Your task to perform on an android device: Clear all items from cart on bestbuy.com. Add jbl flip 4 to the cart on bestbuy.com, then select checkout. Image 0: 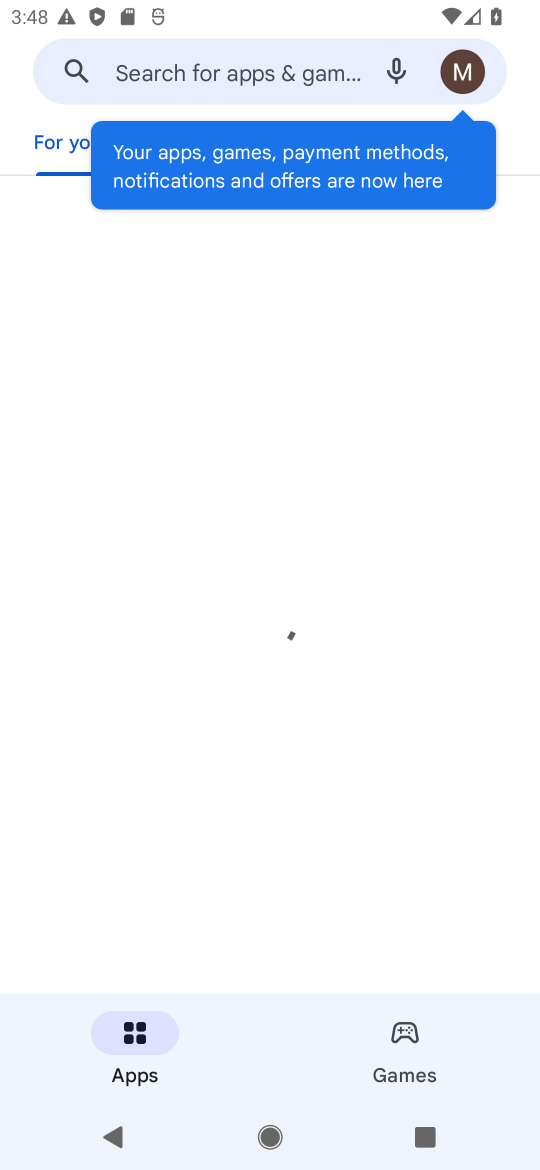
Step 0: press home button
Your task to perform on an android device: Clear all items from cart on bestbuy.com. Add jbl flip 4 to the cart on bestbuy.com, then select checkout. Image 1: 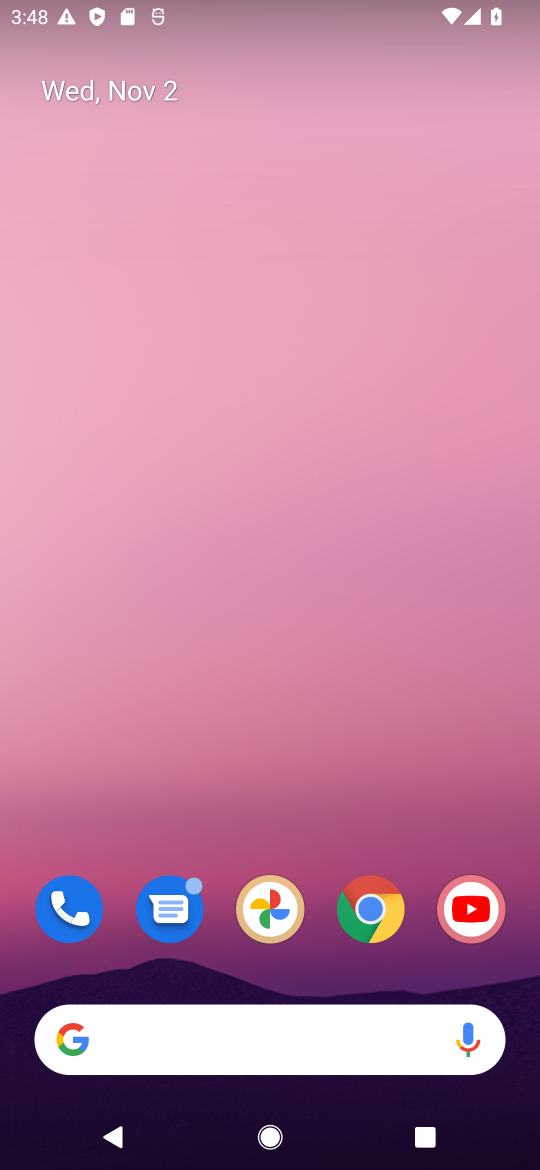
Step 1: click (374, 909)
Your task to perform on an android device: Clear all items from cart on bestbuy.com. Add jbl flip 4 to the cart on bestbuy.com, then select checkout. Image 2: 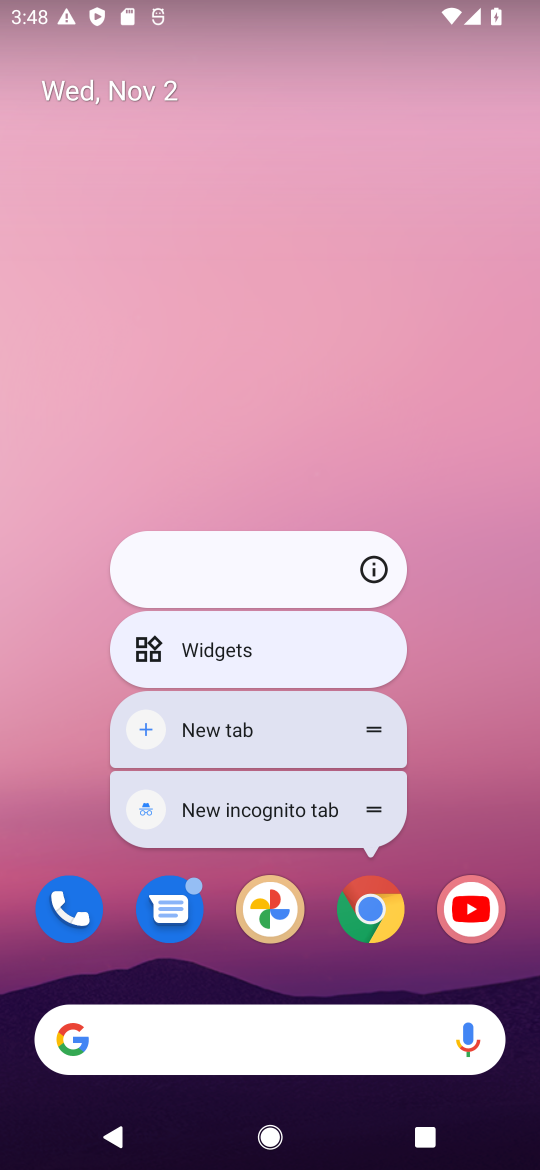
Step 2: click (367, 916)
Your task to perform on an android device: Clear all items from cart on bestbuy.com. Add jbl flip 4 to the cart on bestbuy.com, then select checkout. Image 3: 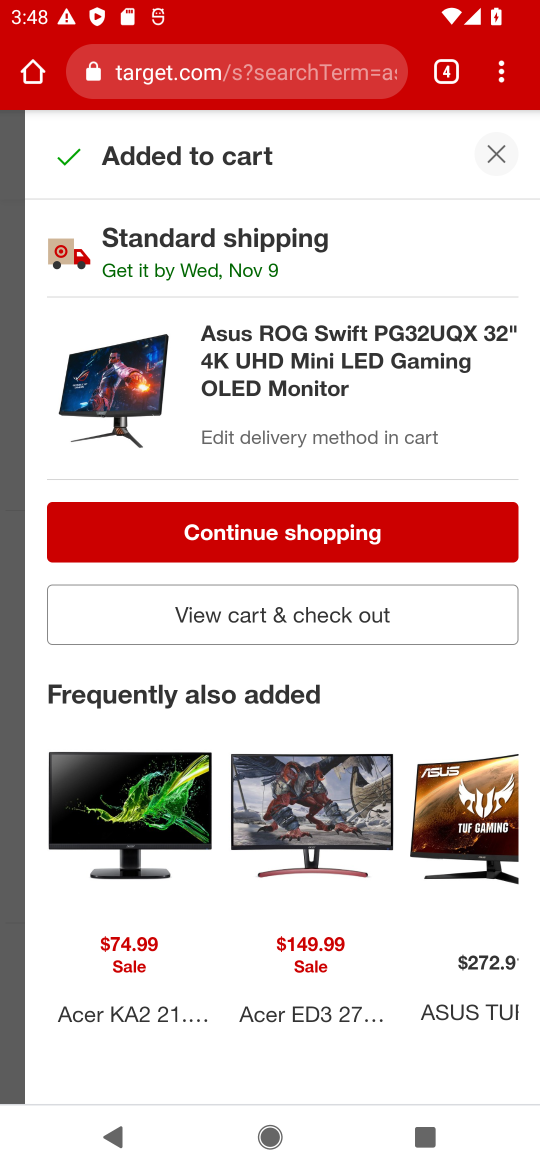
Step 3: click (320, 69)
Your task to perform on an android device: Clear all items from cart on bestbuy.com. Add jbl flip 4 to the cart on bestbuy.com, then select checkout. Image 4: 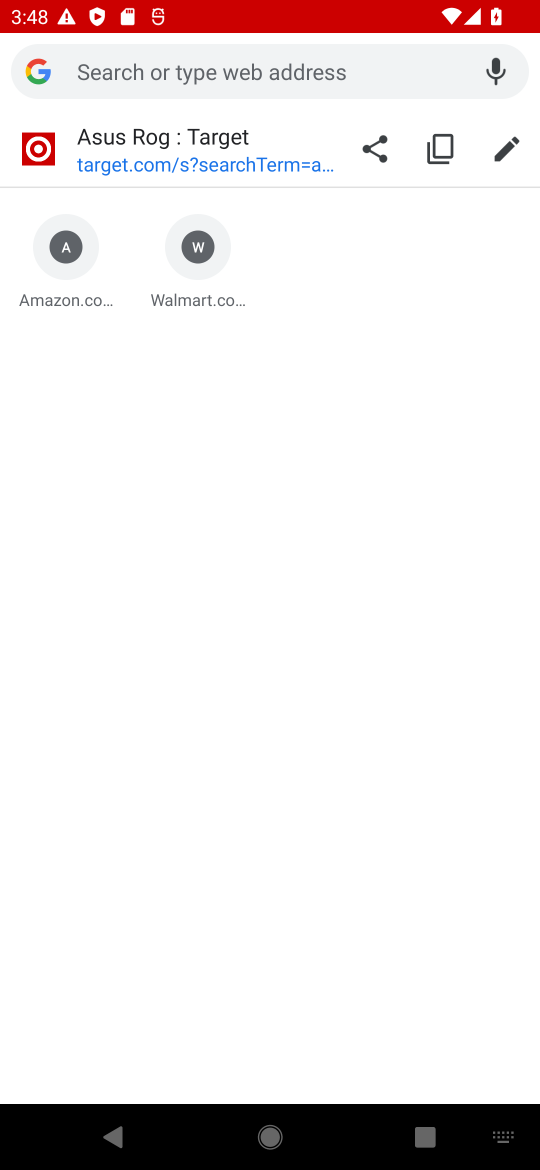
Step 4: type "bestbuy"
Your task to perform on an android device: Clear all items from cart on bestbuy.com. Add jbl flip 4 to the cart on bestbuy.com, then select checkout. Image 5: 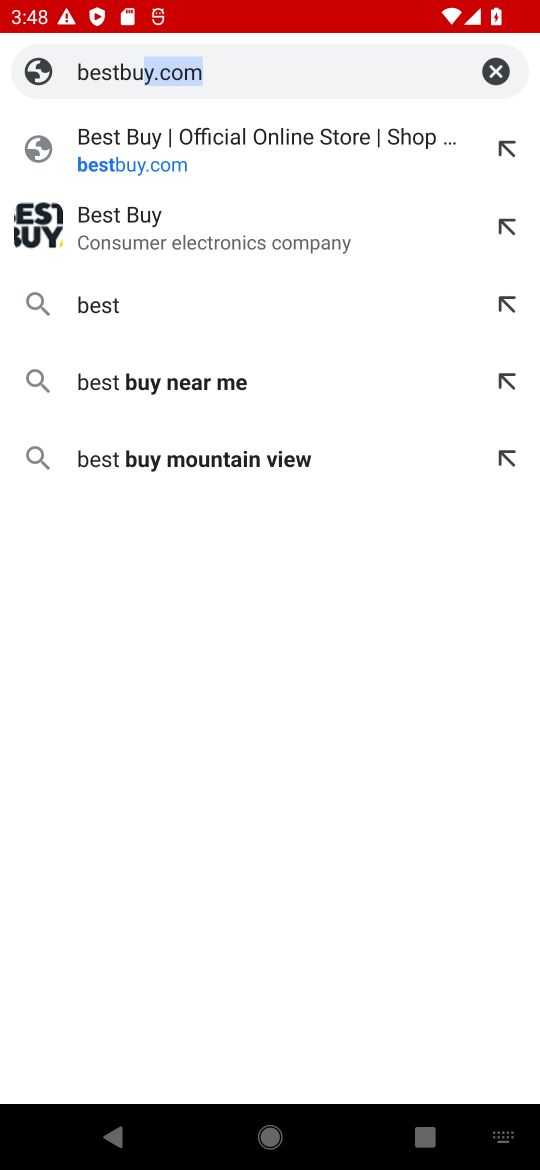
Step 5: press enter
Your task to perform on an android device: Clear all items from cart on bestbuy.com. Add jbl flip 4 to the cart on bestbuy.com, then select checkout. Image 6: 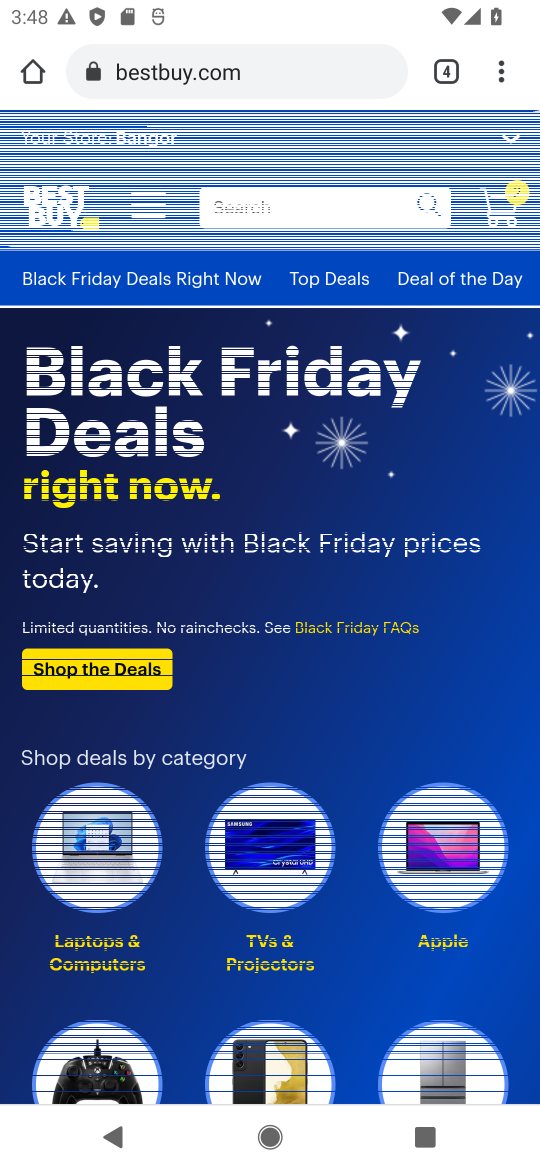
Step 6: click (310, 216)
Your task to perform on an android device: Clear all items from cart on bestbuy.com. Add jbl flip 4 to the cart on bestbuy.com, then select checkout. Image 7: 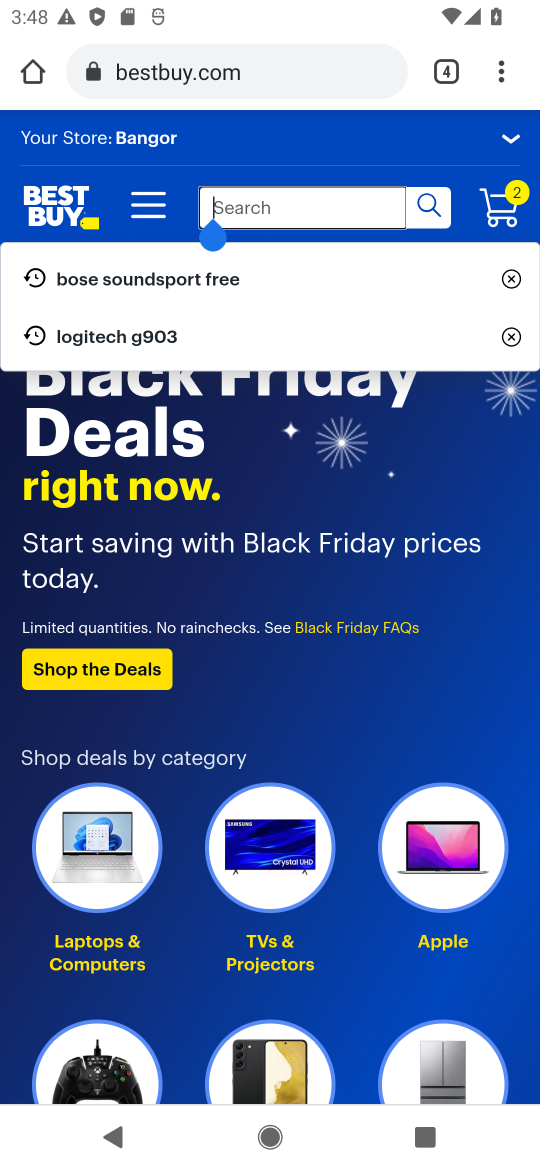
Step 7: click (308, 207)
Your task to perform on an android device: Clear all items from cart on bestbuy.com. Add jbl flip 4 to the cart on bestbuy.com, then select checkout. Image 8: 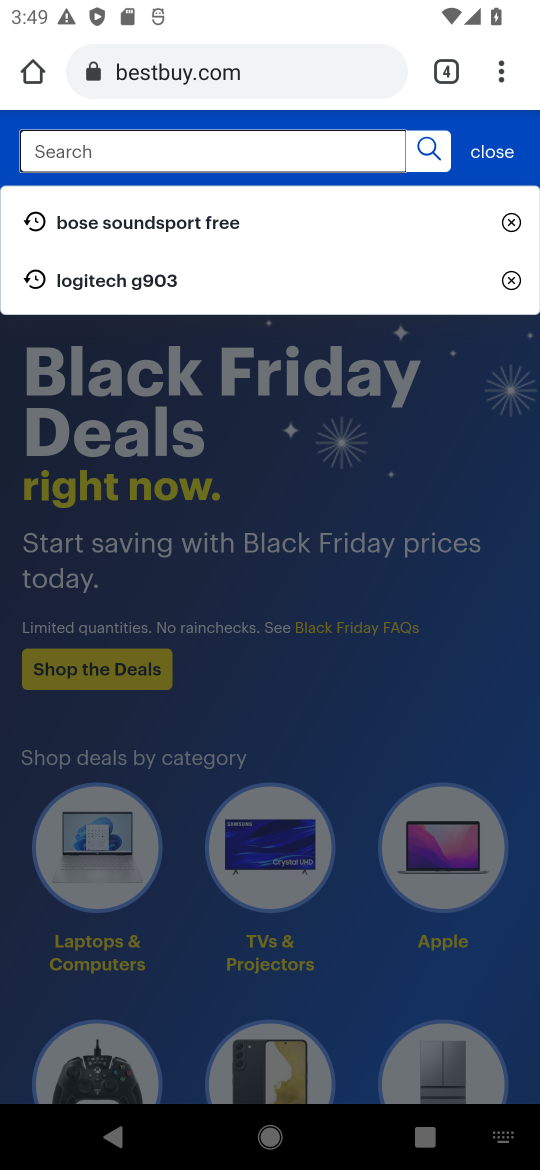
Step 8: type " jbl flip 4"
Your task to perform on an android device: Clear all items from cart on bestbuy.com. Add jbl flip 4 to the cart on bestbuy.com, then select checkout. Image 9: 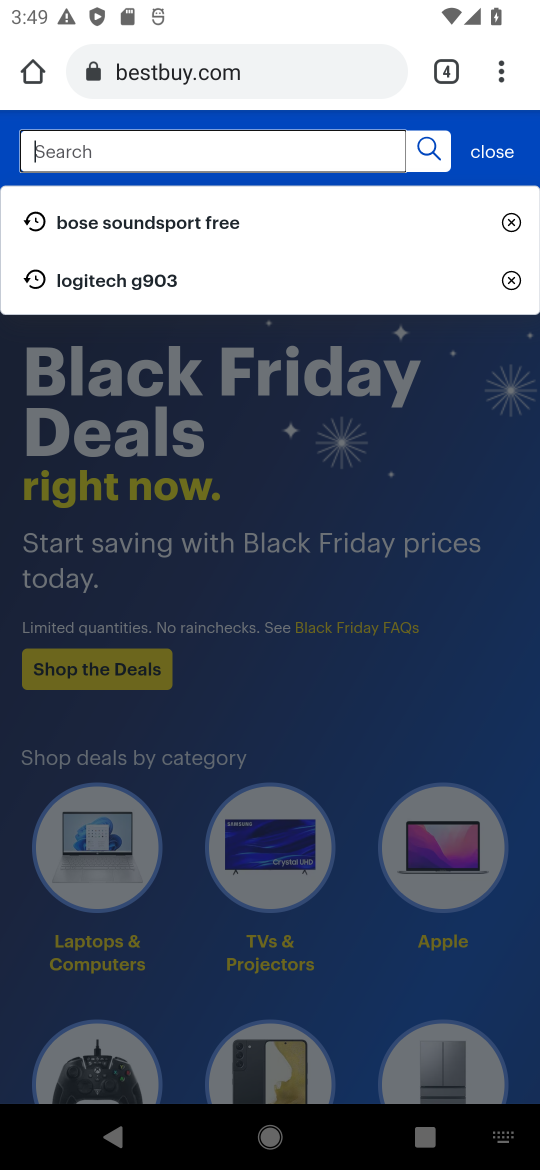
Step 9: press enter
Your task to perform on an android device: Clear all items from cart on bestbuy.com. Add jbl flip 4 to the cart on bestbuy.com, then select checkout. Image 10: 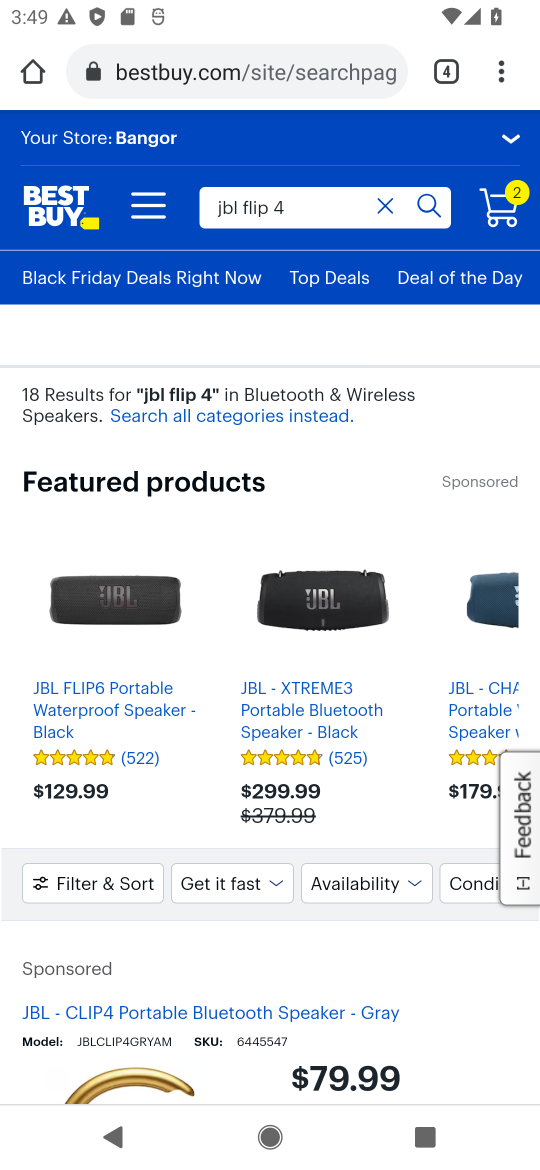
Step 10: drag from (77, 945) to (285, 526)
Your task to perform on an android device: Clear all items from cart on bestbuy.com. Add jbl flip 4 to the cart on bestbuy.com, then select checkout. Image 11: 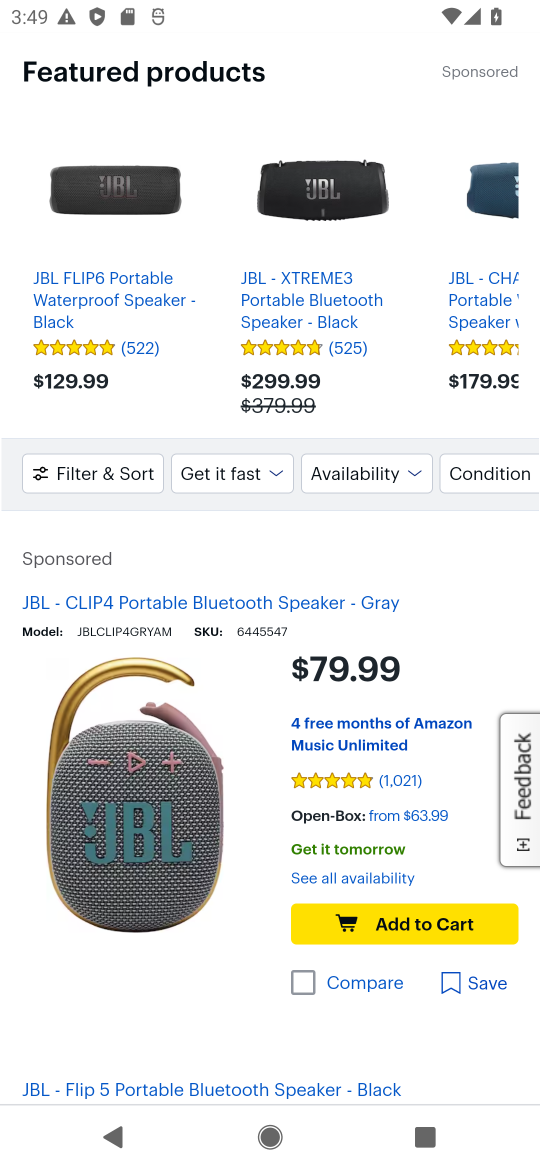
Step 11: click (399, 924)
Your task to perform on an android device: Clear all items from cart on bestbuy.com. Add jbl flip 4 to the cart on bestbuy.com, then select checkout. Image 12: 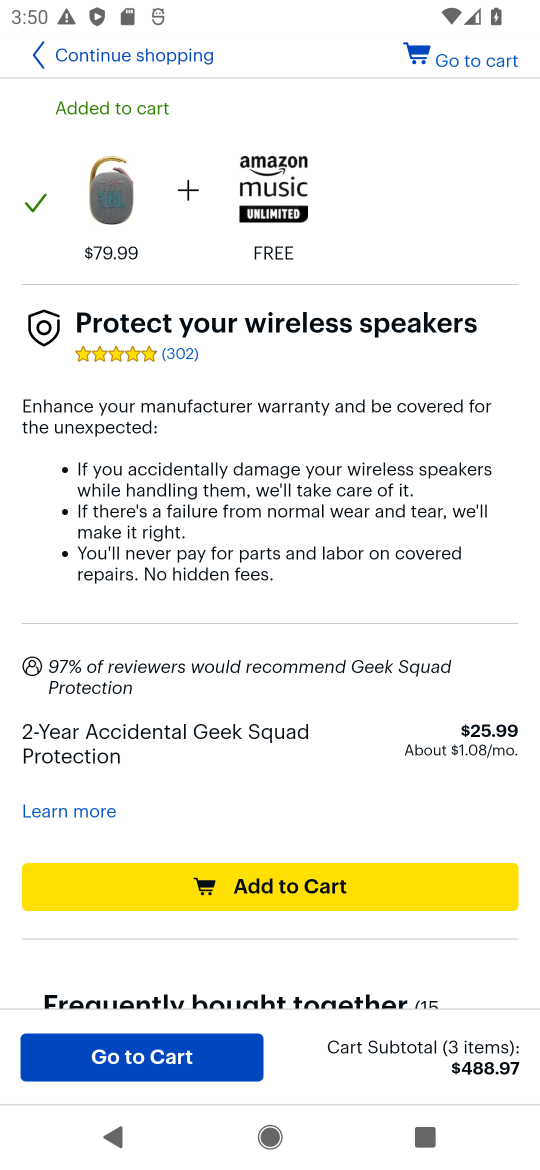
Step 12: click (117, 1065)
Your task to perform on an android device: Clear all items from cart on bestbuy.com. Add jbl flip 4 to the cart on bestbuy.com, then select checkout. Image 13: 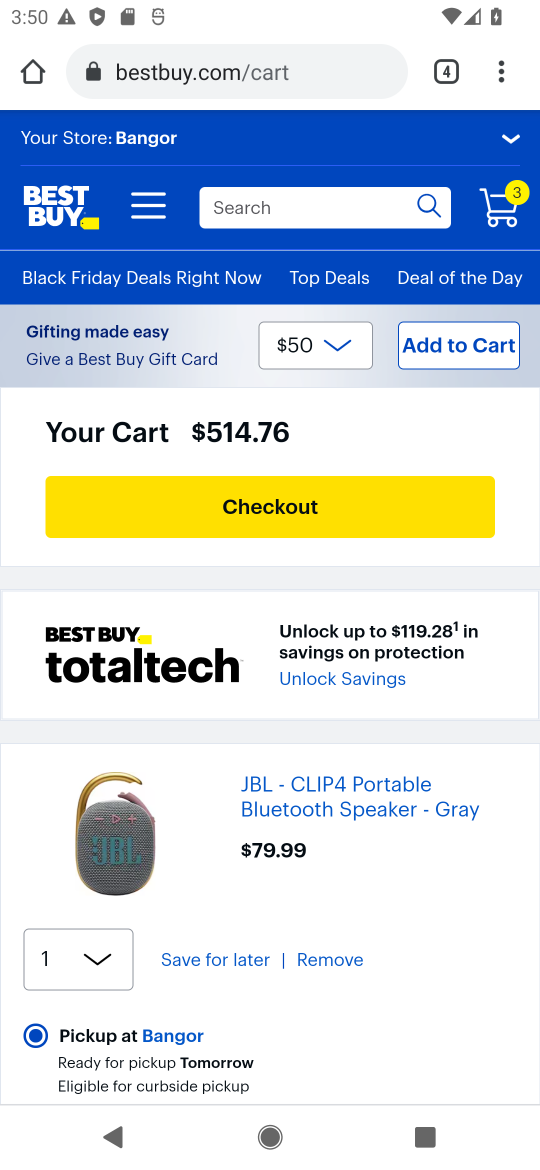
Step 13: click (318, 503)
Your task to perform on an android device: Clear all items from cart on bestbuy.com. Add jbl flip 4 to the cart on bestbuy.com, then select checkout. Image 14: 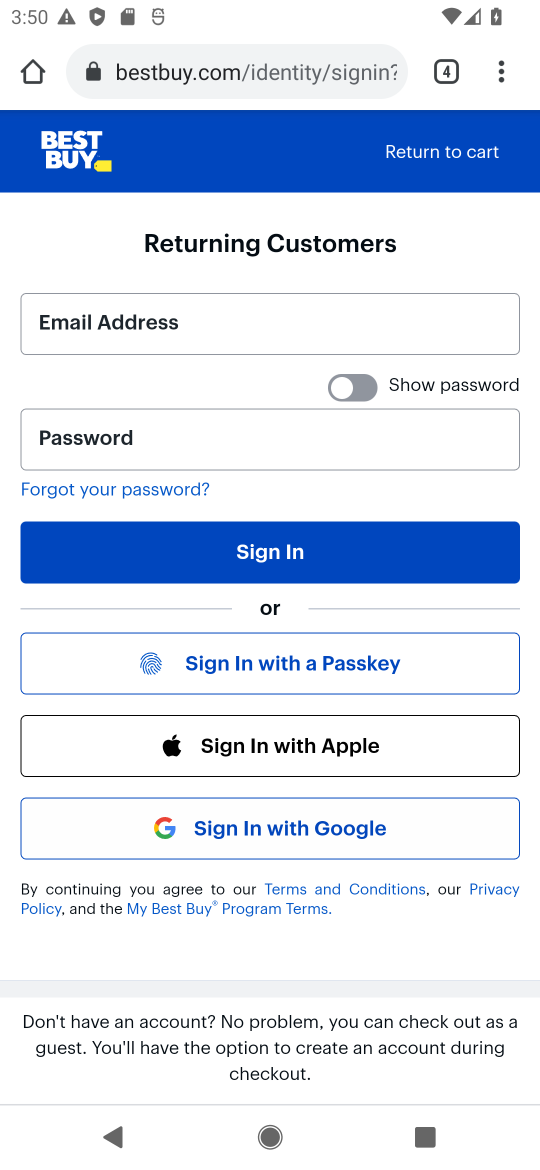
Step 14: task complete